Your task to perform on an android device: Open Chrome and go to settings Image 0: 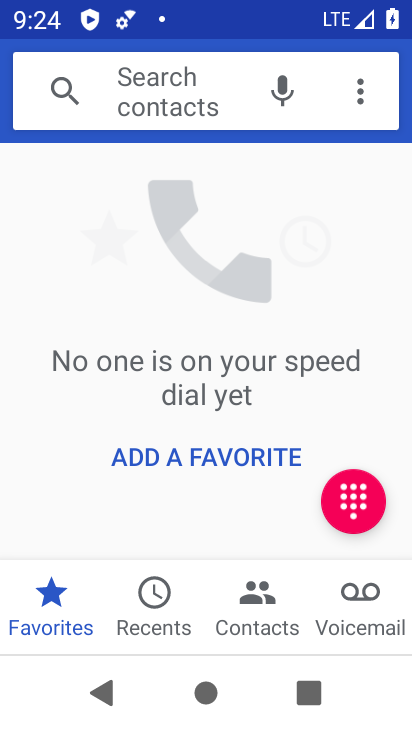
Step 0: press home button
Your task to perform on an android device: Open Chrome and go to settings Image 1: 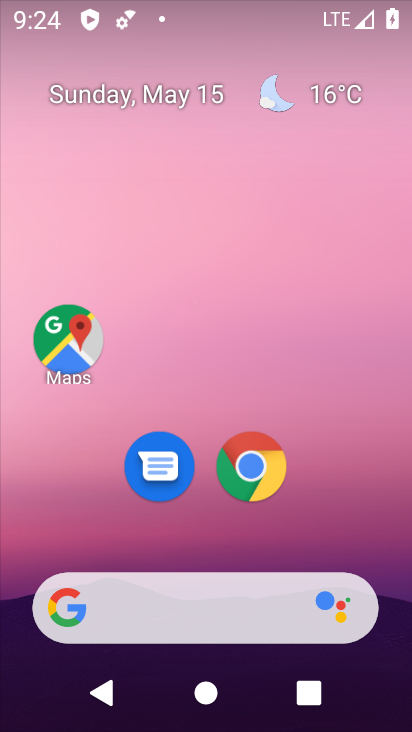
Step 1: click (266, 470)
Your task to perform on an android device: Open Chrome and go to settings Image 2: 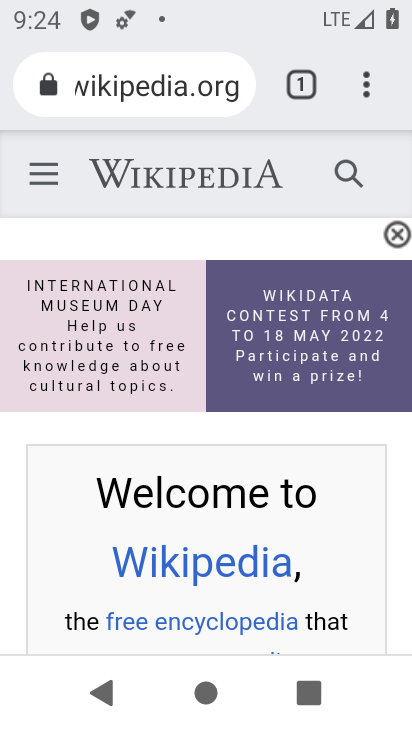
Step 2: task complete